Your task to perform on an android device: View the shopping cart on walmart.com. Search for dell alienware on walmart.com, select the first entry, add it to the cart, then select checkout. Image 0: 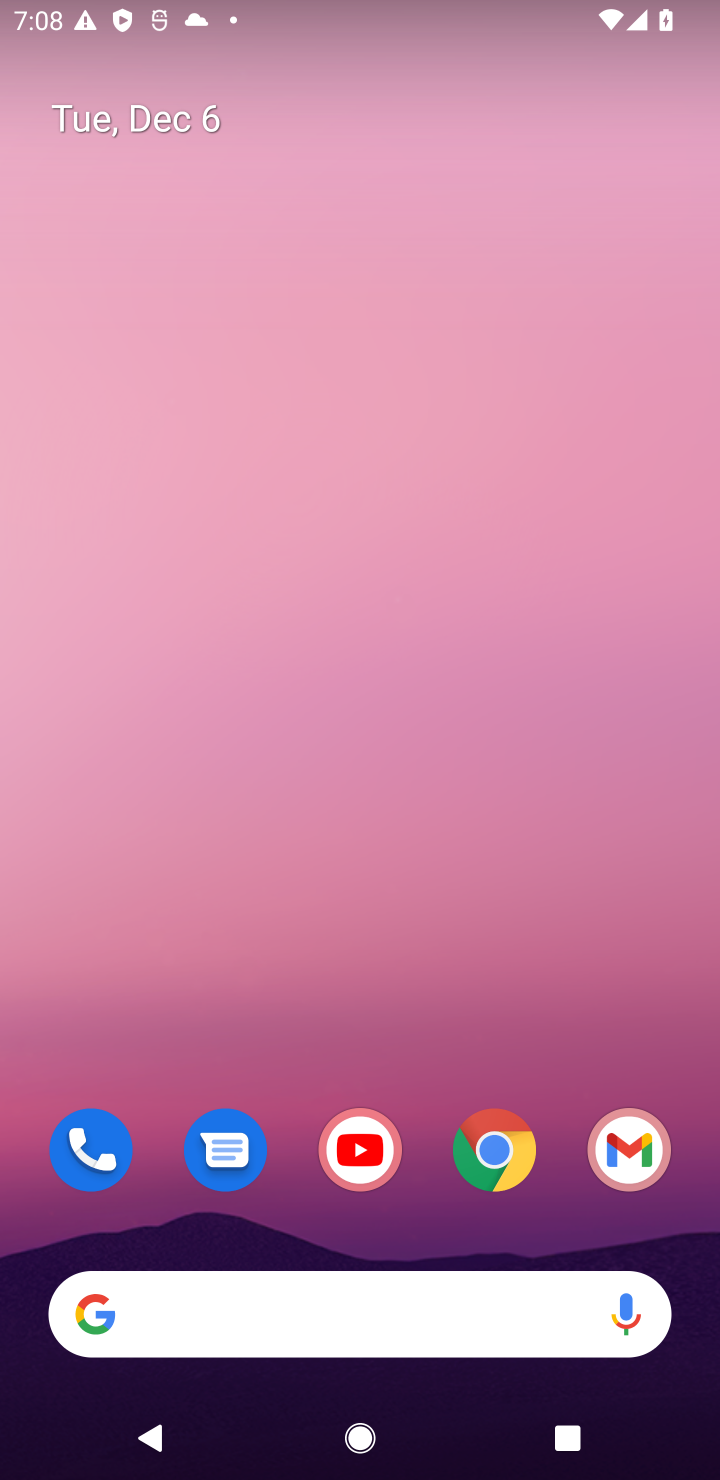
Step 0: click (500, 1154)
Your task to perform on an android device: View the shopping cart on walmart.com. Search for dell alienware on walmart.com, select the first entry, add it to the cart, then select checkout. Image 1: 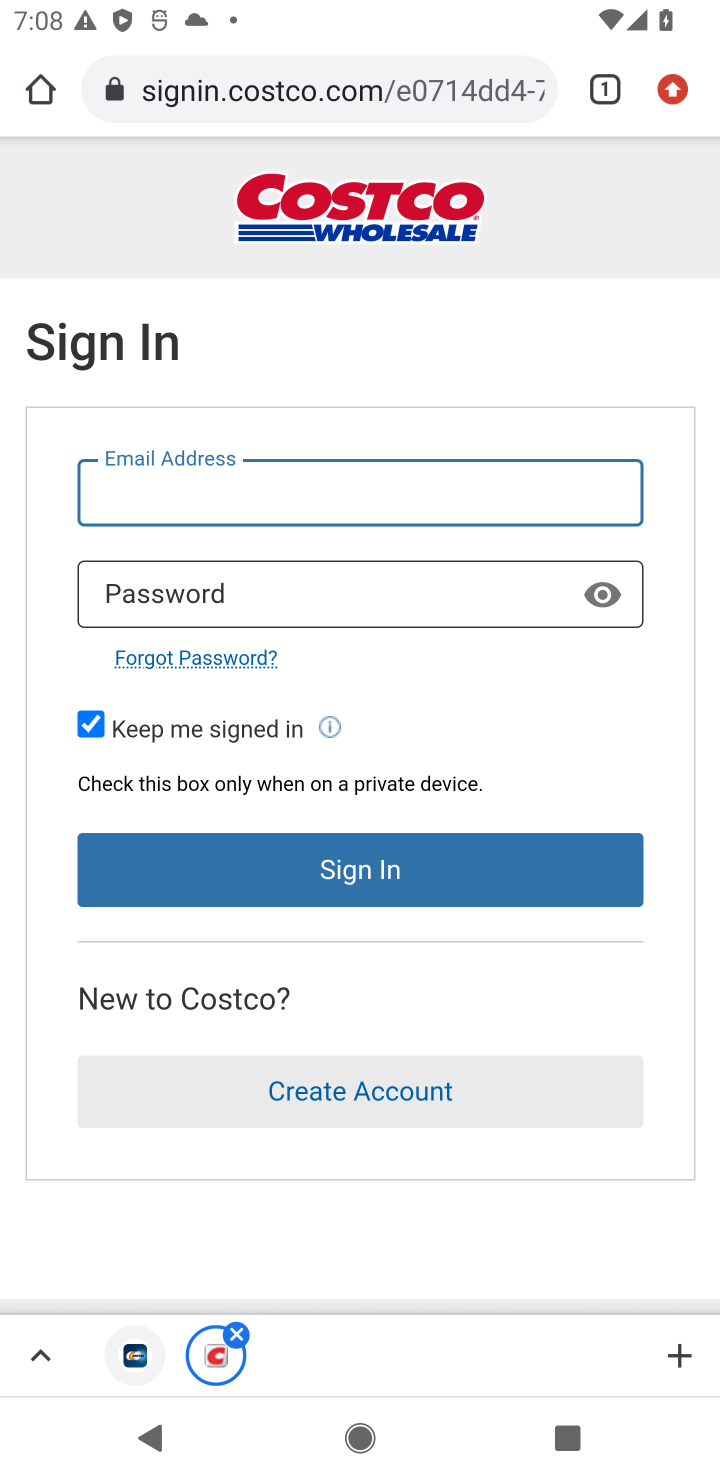
Step 1: click (324, 85)
Your task to perform on an android device: View the shopping cart on walmart.com. Search for dell alienware on walmart.com, select the first entry, add it to the cart, then select checkout. Image 2: 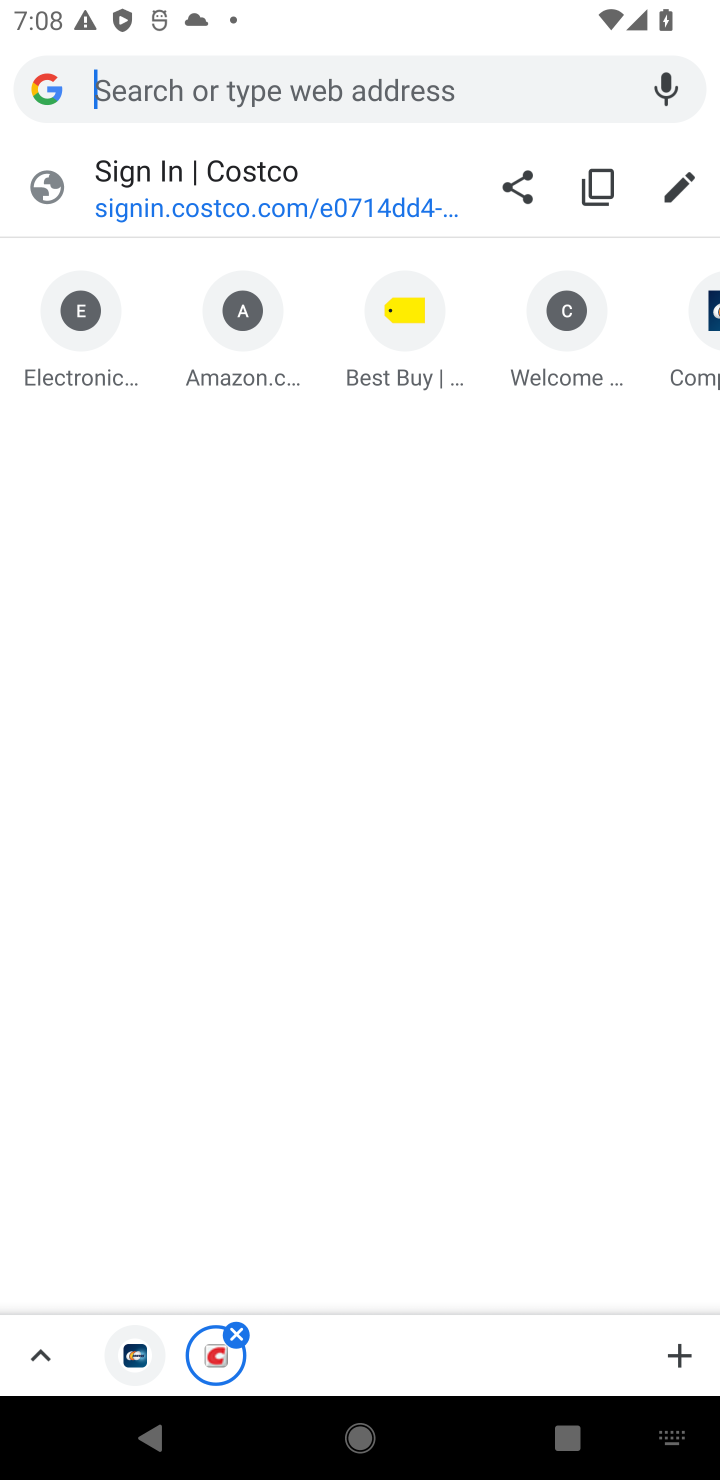
Step 2: type "walmart.com"
Your task to perform on an android device: View the shopping cart on walmart.com. Search for dell alienware on walmart.com, select the first entry, add it to the cart, then select checkout. Image 3: 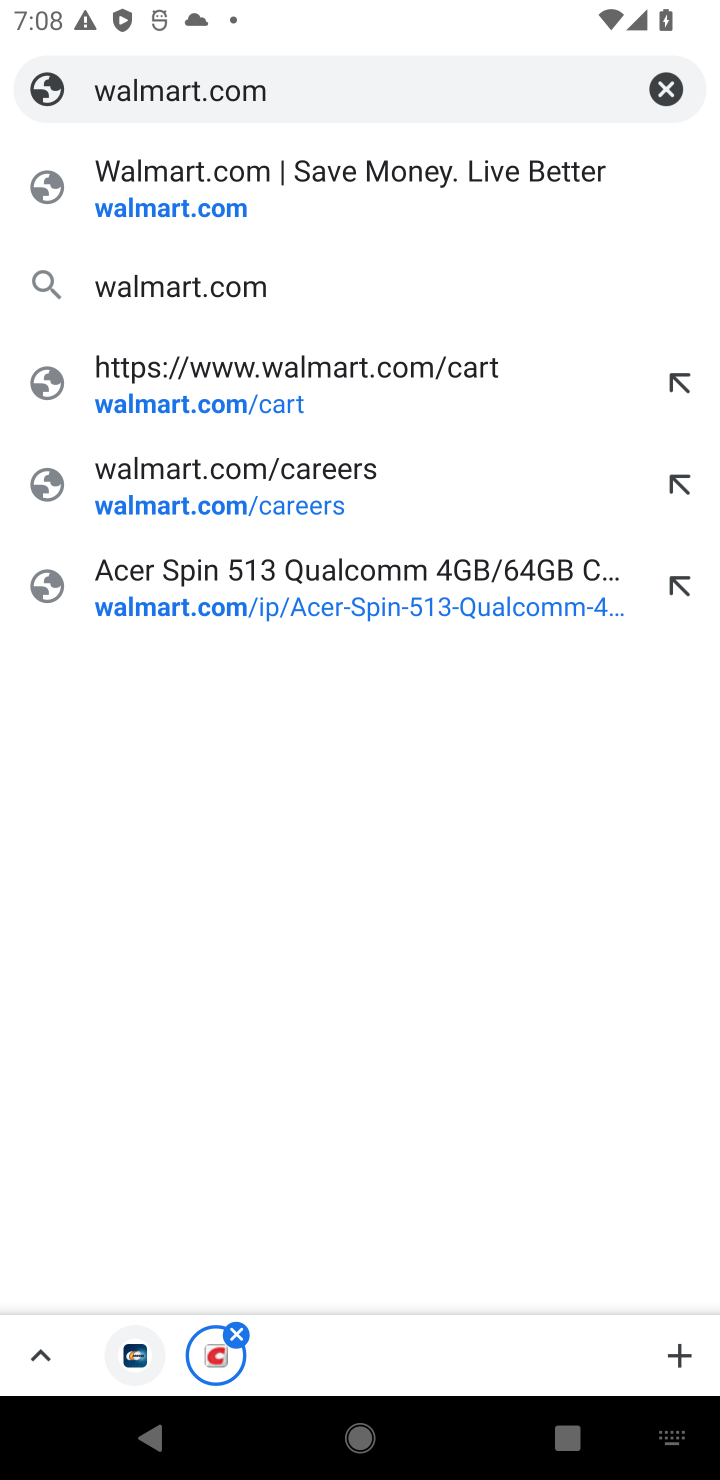
Step 3: click (120, 205)
Your task to perform on an android device: View the shopping cart on walmart.com. Search for dell alienware on walmart.com, select the first entry, add it to the cart, then select checkout. Image 4: 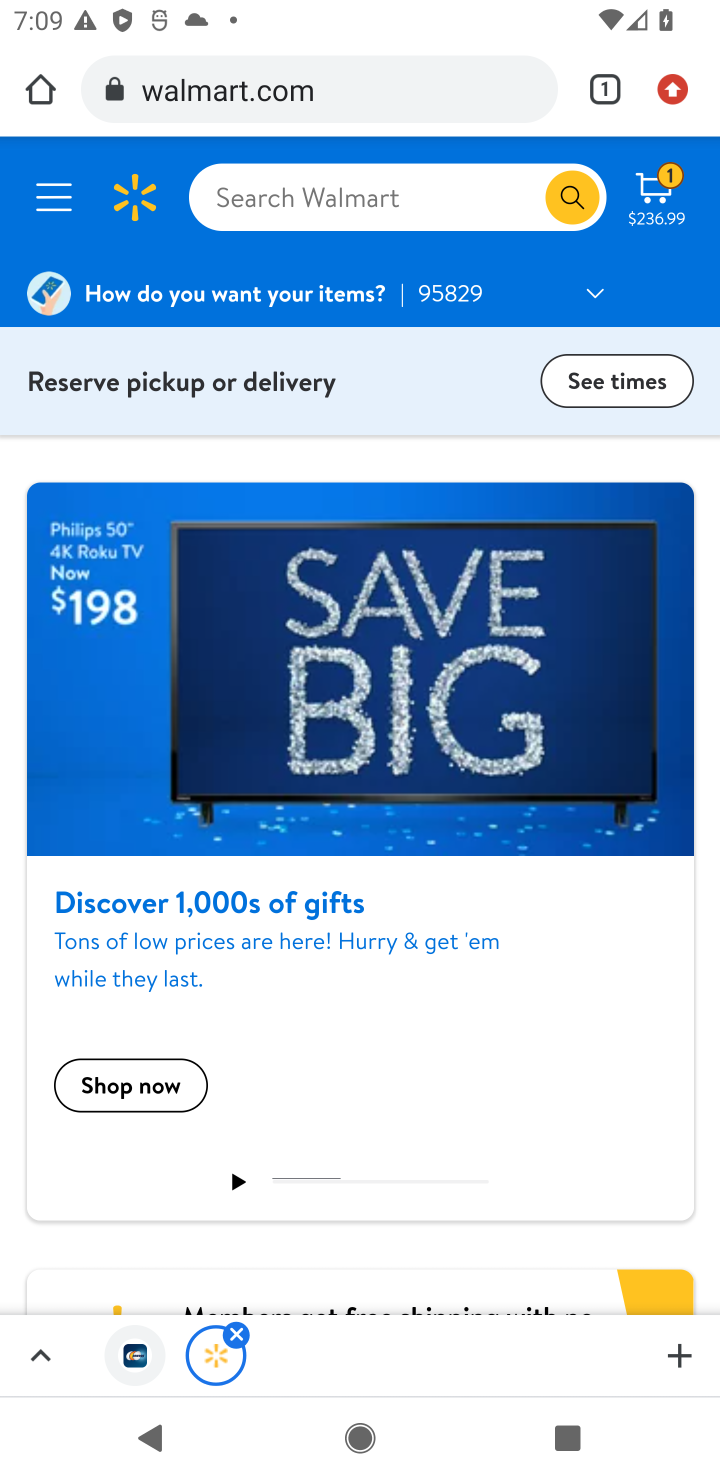
Step 4: click (649, 174)
Your task to perform on an android device: View the shopping cart on walmart.com. Search for dell alienware on walmart.com, select the first entry, add it to the cart, then select checkout. Image 5: 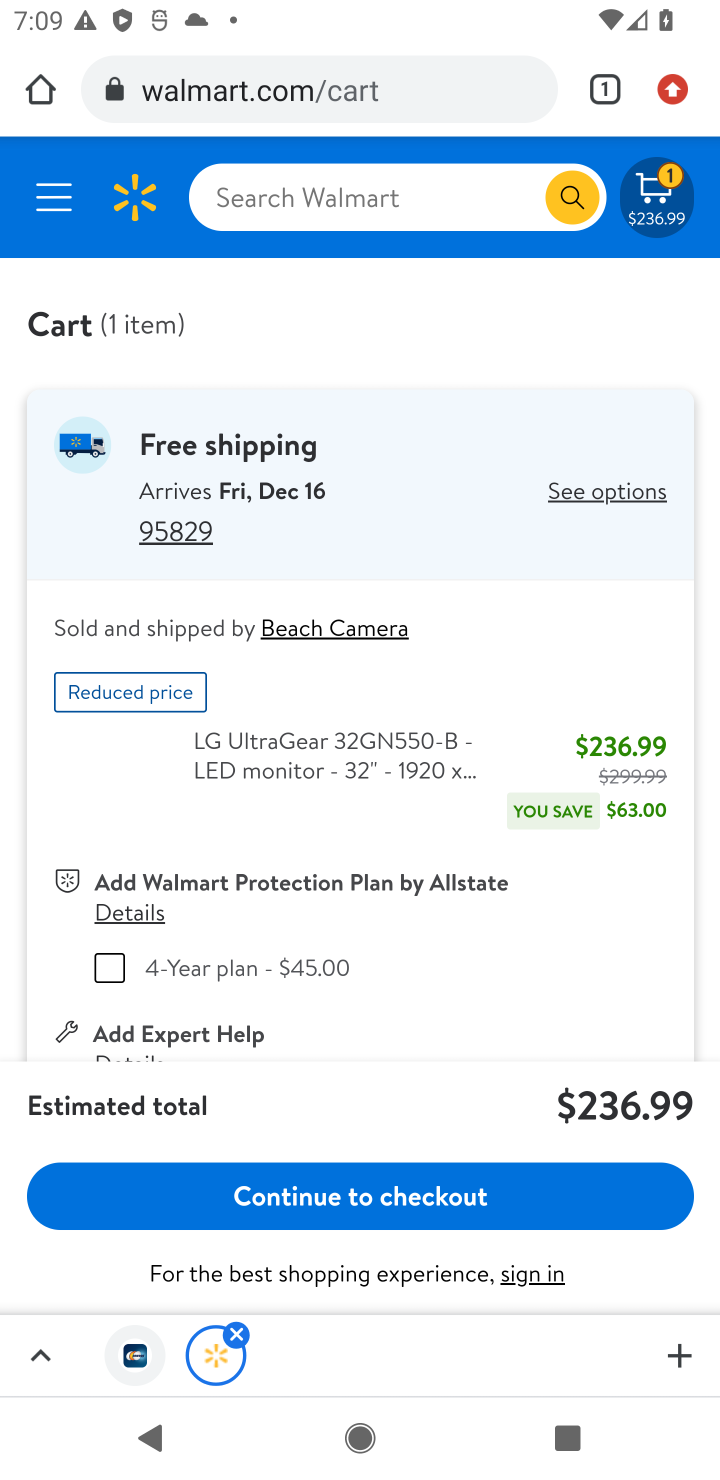
Step 5: click (278, 193)
Your task to perform on an android device: View the shopping cart on walmart.com. Search for dell alienware on walmart.com, select the first entry, add it to the cart, then select checkout. Image 6: 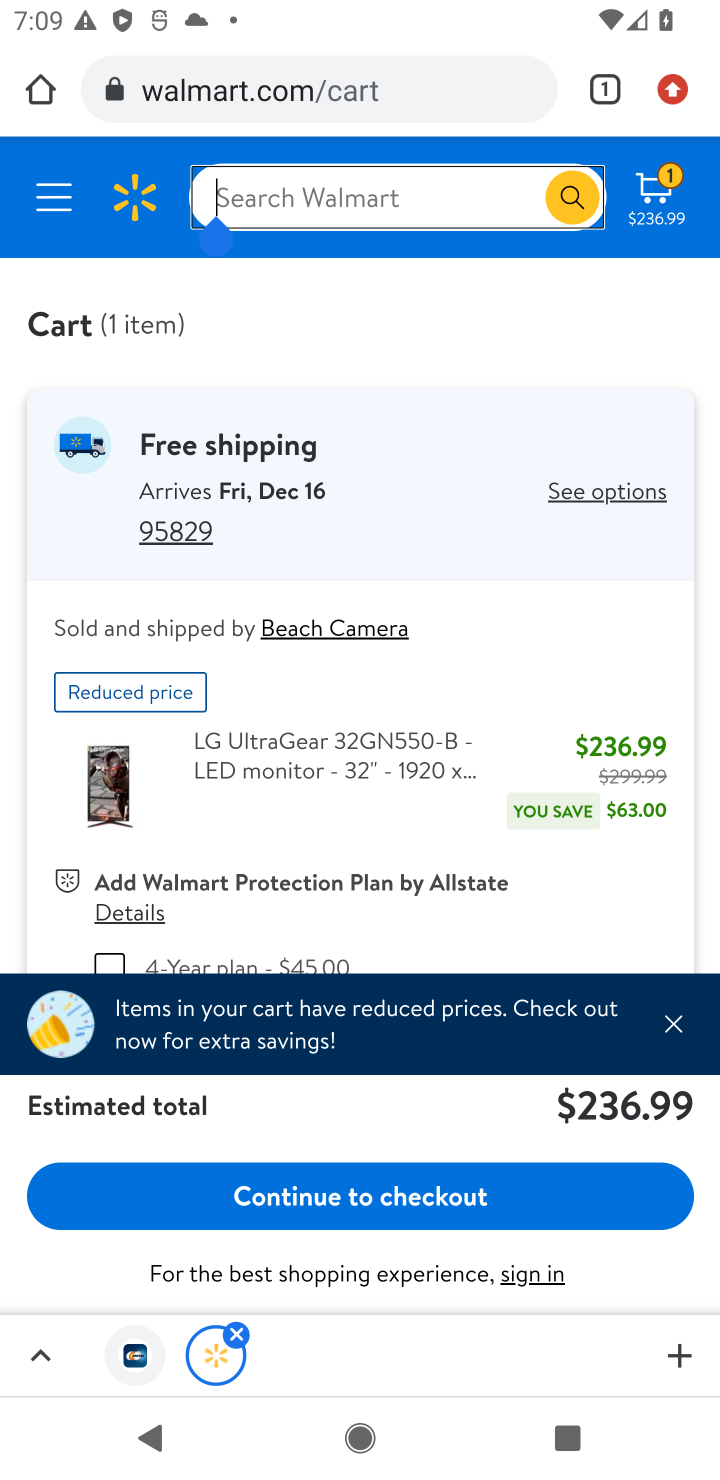
Step 6: type "dell alienware"
Your task to perform on an android device: View the shopping cart on walmart.com. Search for dell alienware on walmart.com, select the first entry, add it to the cart, then select checkout. Image 7: 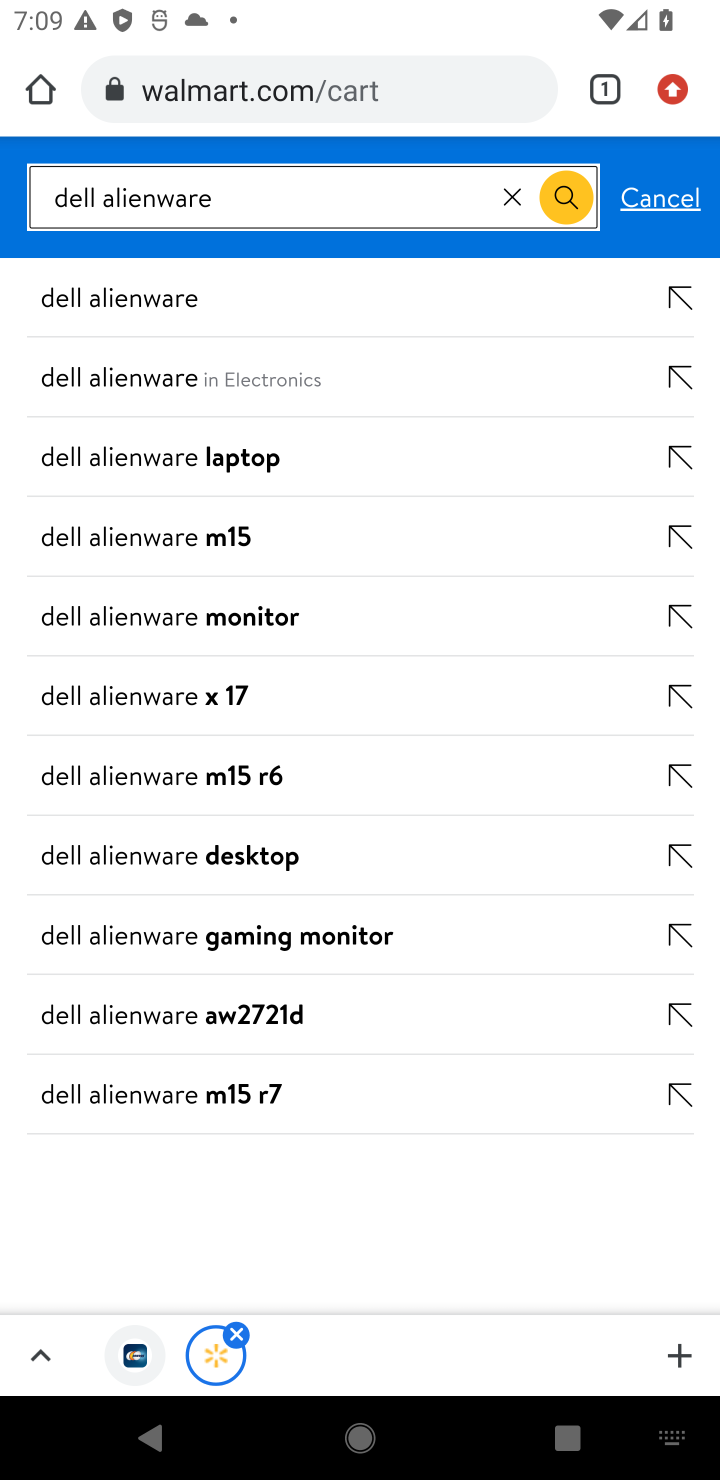
Step 7: click (149, 294)
Your task to perform on an android device: View the shopping cart on walmart.com. Search for dell alienware on walmart.com, select the first entry, add it to the cart, then select checkout. Image 8: 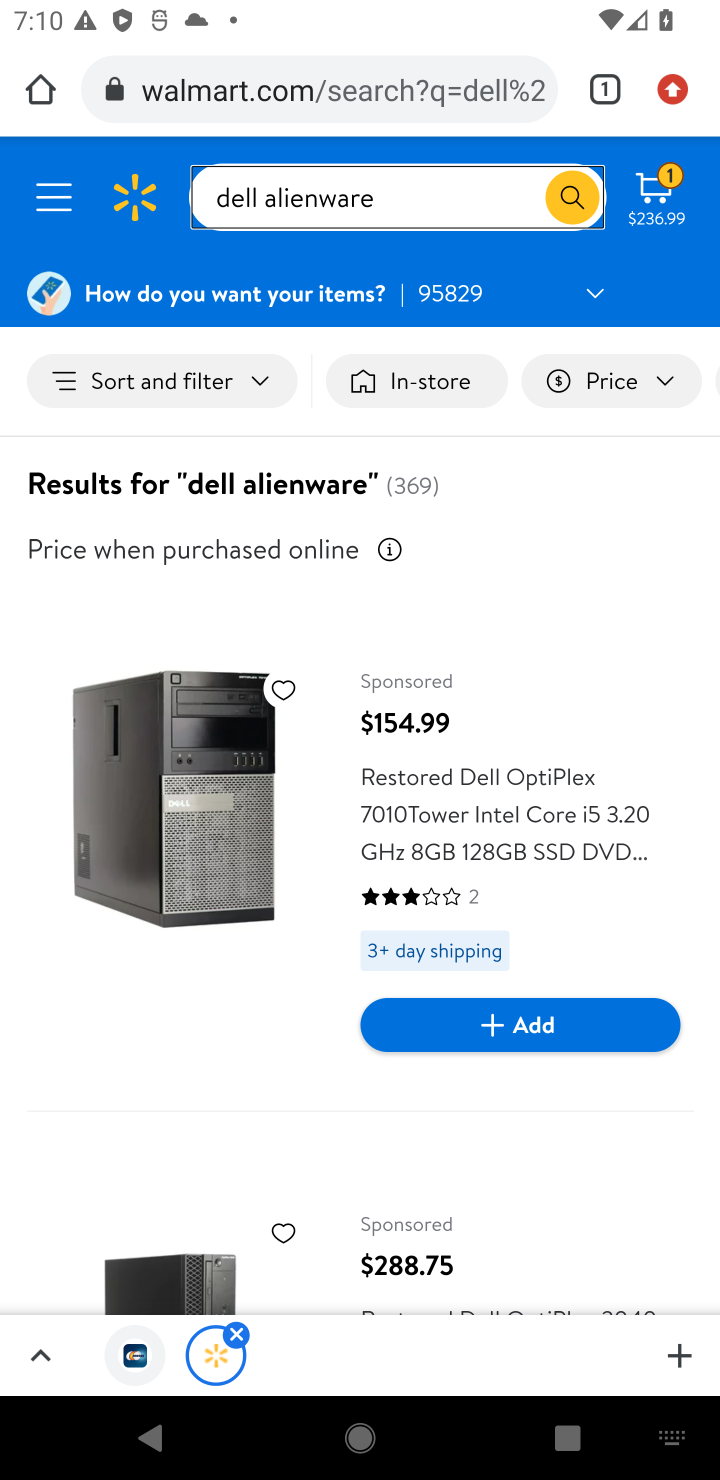
Step 8: task complete